Your task to perform on an android device: toggle wifi Image 0: 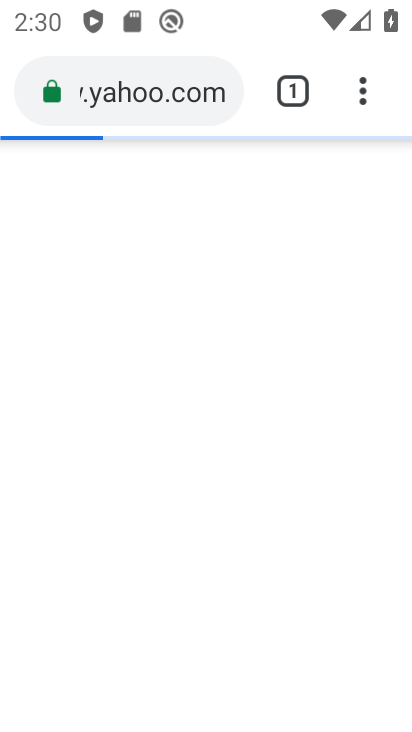
Step 0: press home button
Your task to perform on an android device: toggle wifi Image 1: 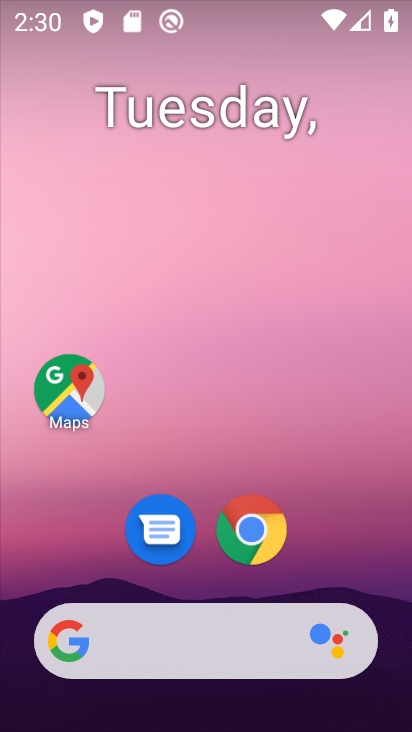
Step 1: drag from (386, 588) to (298, 50)
Your task to perform on an android device: toggle wifi Image 2: 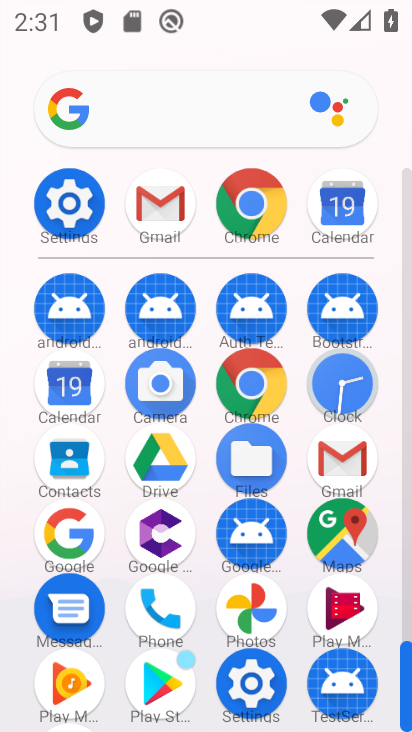
Step 2: drag from (208, 7) to (295, 537)
Your task to perform on an android device: toggle wifi Image 3: 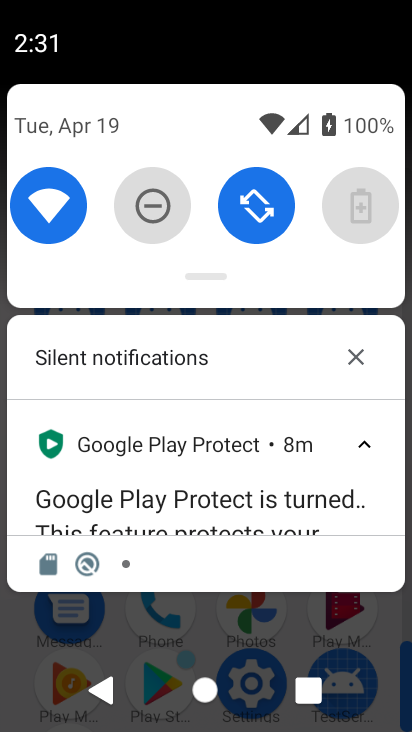
Step 3: click (63, 233)
Your task to perform on an android device: toggle wifi Image 4: 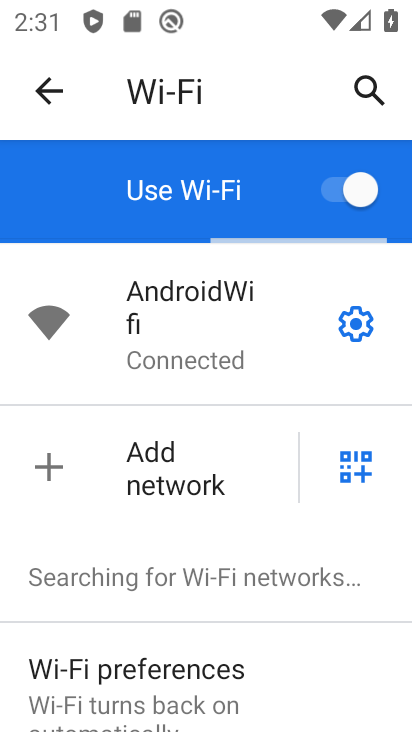
Step 4: click (321, 173)
Your task to perform on an android device: toggle wifi Image 5: 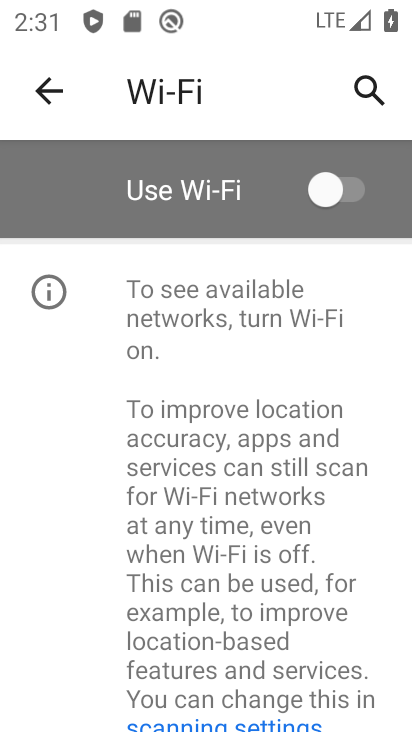
Step 5: task complete